Your task to perform on an android device: turn on improve location accuracy Image 0: 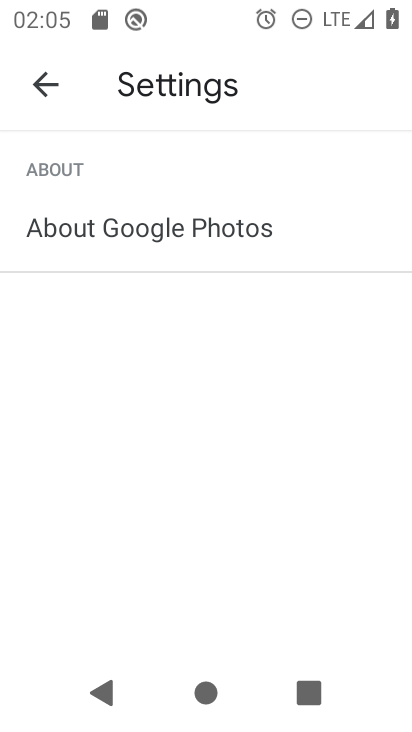
Step 0: press home button
Your task to perform on an android device: turn on improve location accuracy Image 1: 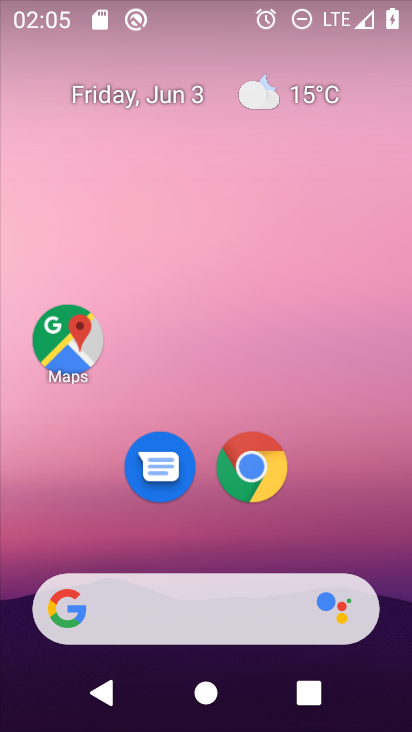
Step 1: drag from (397, 619) to (359, 60)
Your task to perform on an android device: turn on improve location accuracy Image 2: 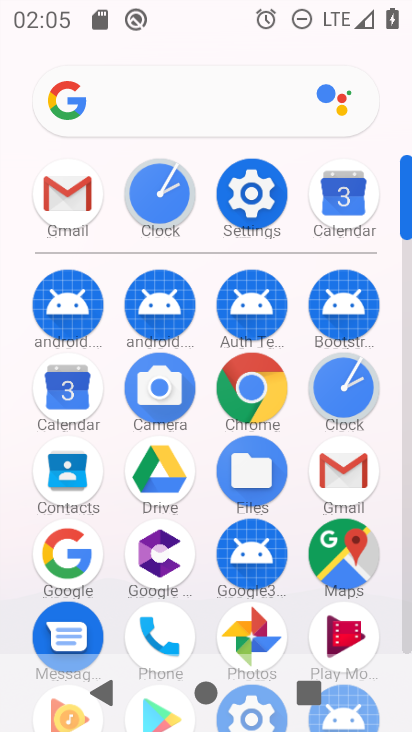
Step 2: click (408, 636)
Your task to perform on an android device: turn on improve location accuracy Image 3: 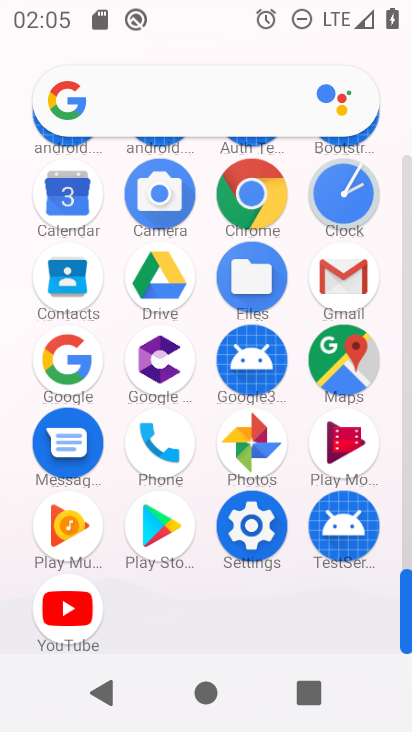
Step 3: click (251, 523)
Your task to perform on an android device: turn on improve location accuracy Image 4: 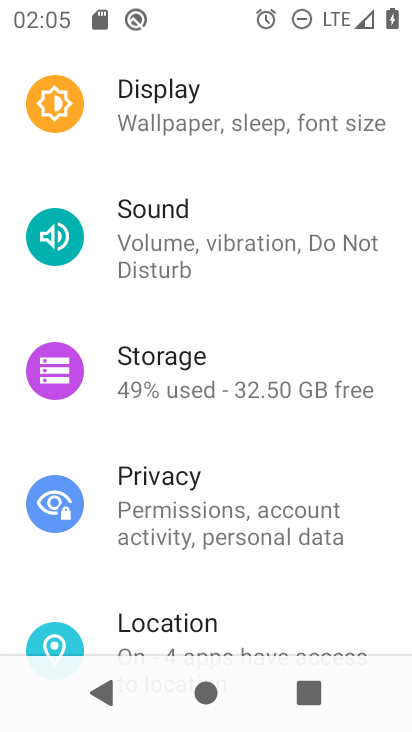
Step 4: drag from (352, 547) to (349, 125)
Your task to perform on an android device: turn on improve location accuracy Image 5: 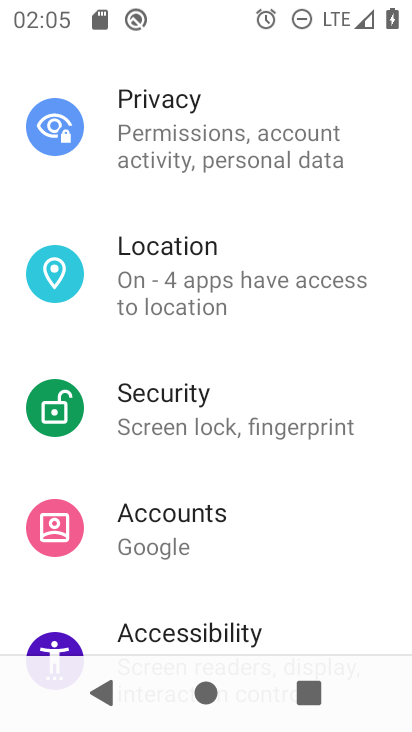
Step 5: click (149, 289)
Your task to perform on an android device: turn on improve location accuracy Image 6: 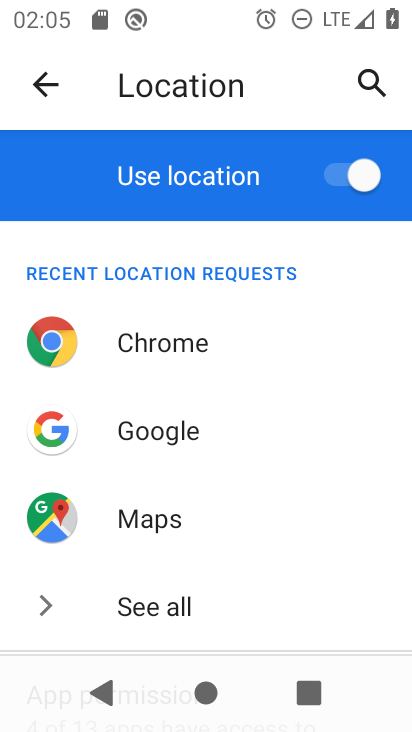
Step 6: drag from (330, 551) to (257, 13)
Your task to perform on an android device: turn on improve location accuracy Image 7: 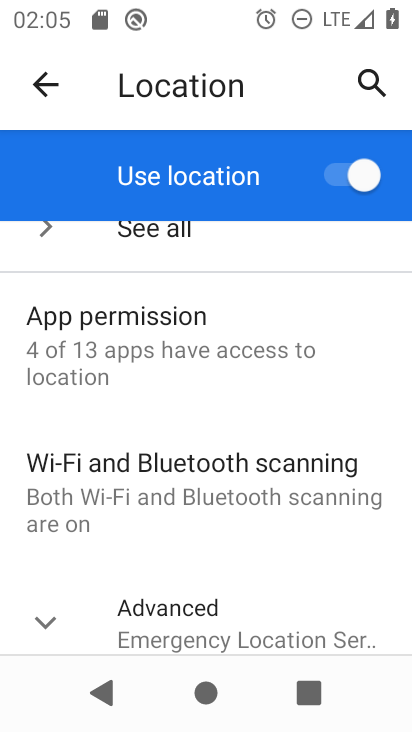
Step 7: click (45, 626)
Your task to perform on an android device: turn on improve location accuracy Image 8: 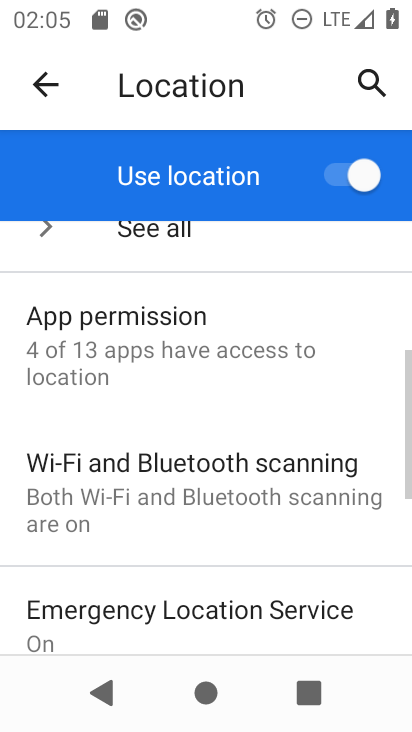
Step 8: drag from (300, 595) to (238, 130)
Your task to perform on an android device: turn on improve location accuracy Image 9: 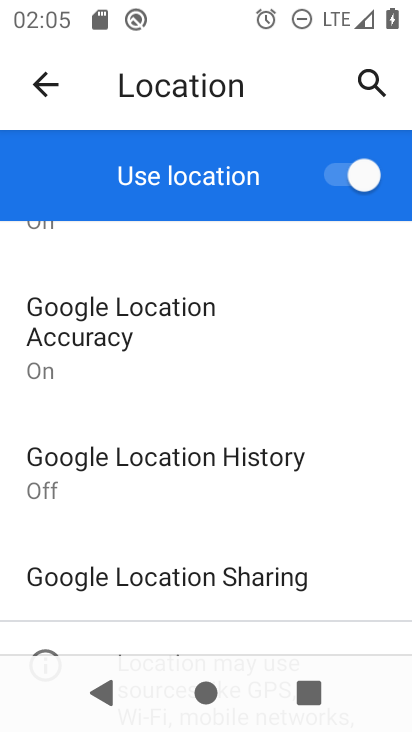
Step 9: click (67, 341)
Your task to perform on an android device: turn on improve location accuracy Image 10: 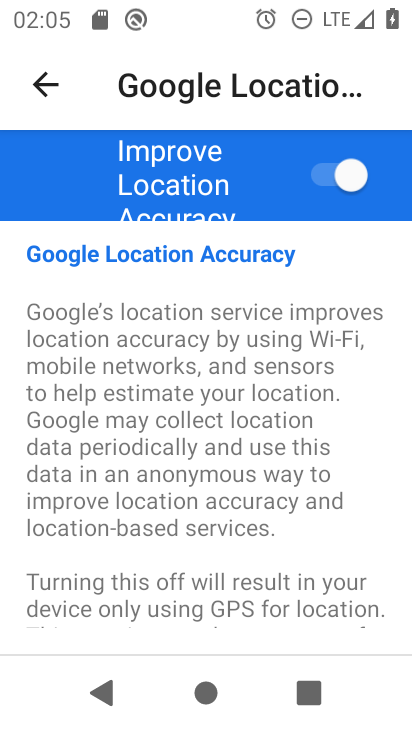
Step 10: task complete